Your task to perform on an android device: Open the Play Movies app and select the watchlist tab. Image 0: 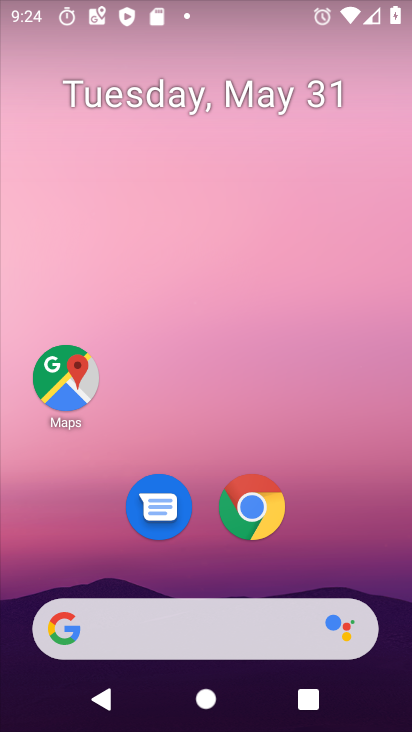
Step 0: drag from (369, 587) to (346, 8)
Your task to perform on an android device: Open the Play Movies app and select the watchlist tab. Image 1: 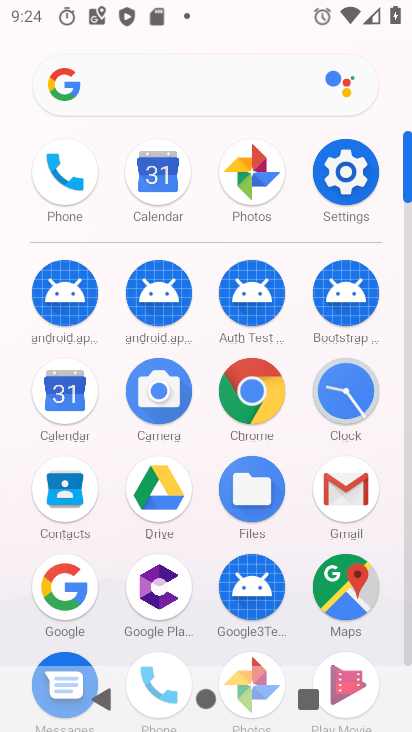
Step 1: click (408, 545)
Your task to perform on an android device: Open the Play Movies app and select the watchlist tab. Image 2: 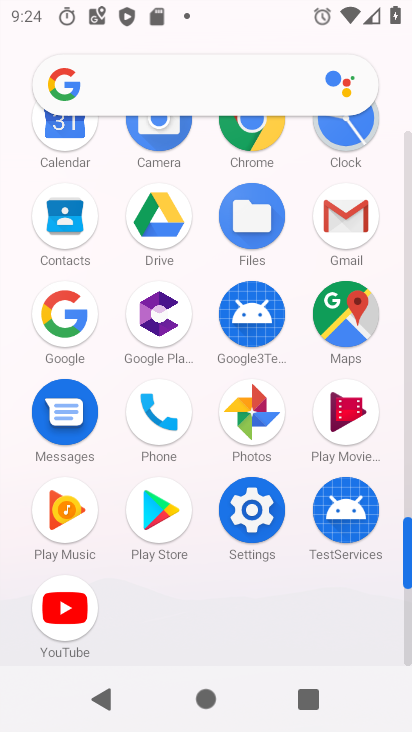
Step 2: click (344, 409)
Your task to perform on an android device: Open the Play Movies app and select the watchlist tab. Image 3: 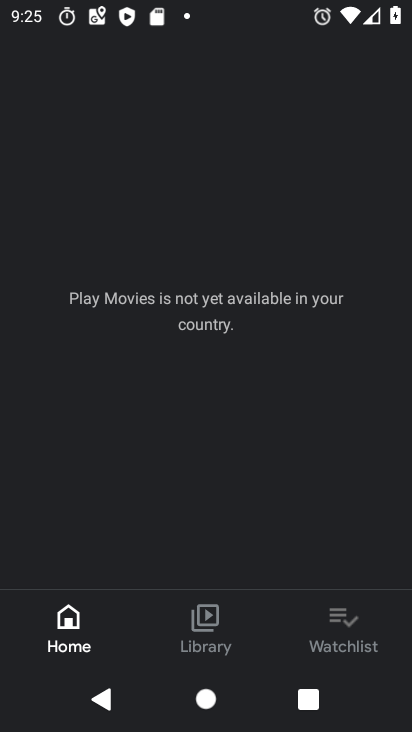
Step 3: click (339, 632)
Your task to perform on an android device: Open the Play Movies app and select the watchlist tab. Image 4: 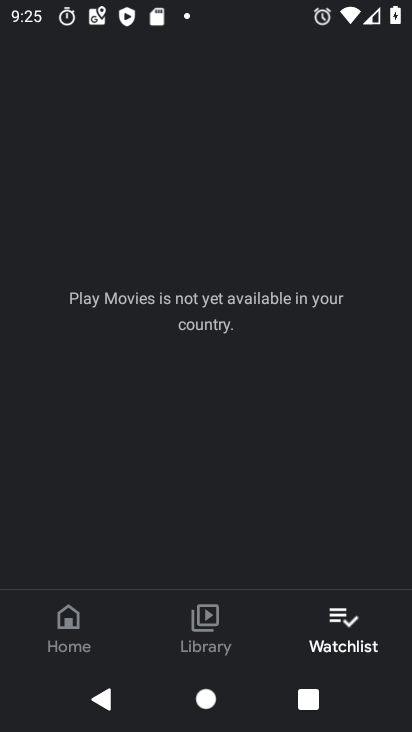
Step 4: task complete